Your task to perform on an android device: uninstall "TextNow: Call + Text Unlimited" Image 0: 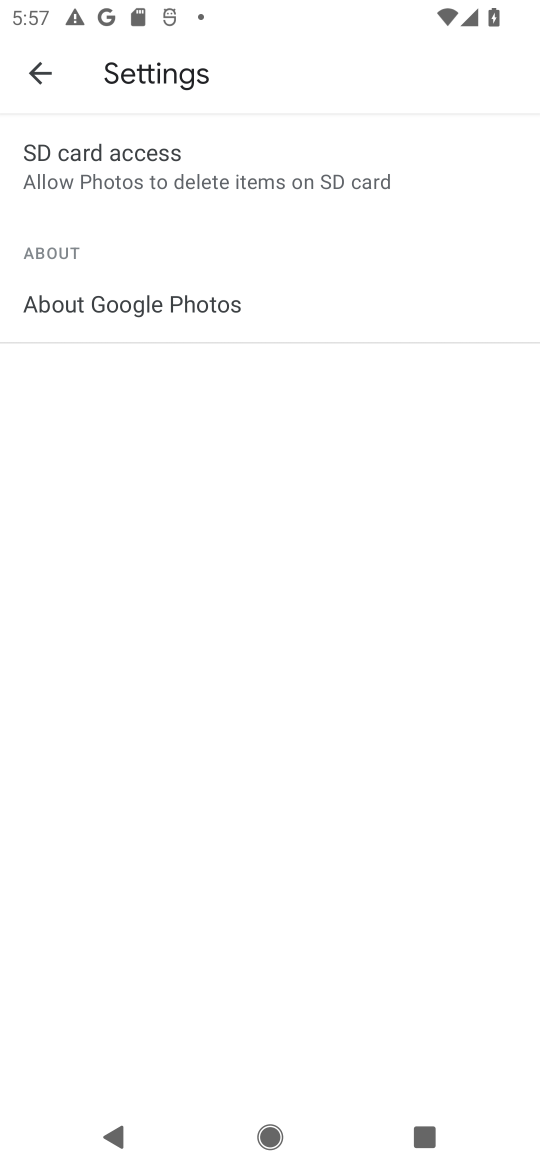
Step 0: click (29, 62)
Your task to perform on an android device: uninstall "TextNow: Call + Text Unlimited" Image 1: 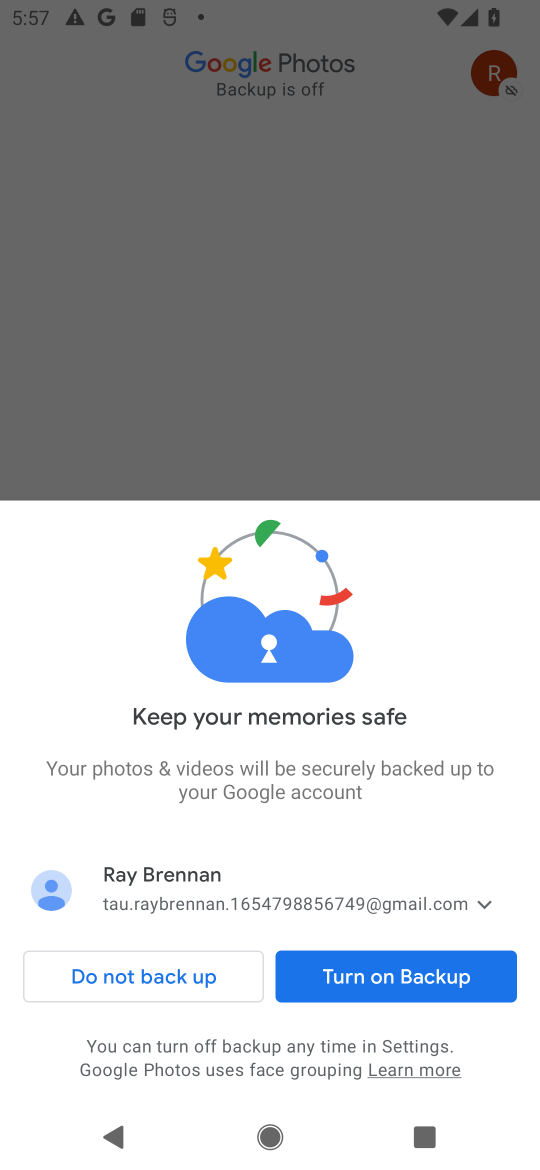
Step 1: press home button
Your task to perform on an android device: uninstall "TextNow: Call + Text Unlimited" Image 2: 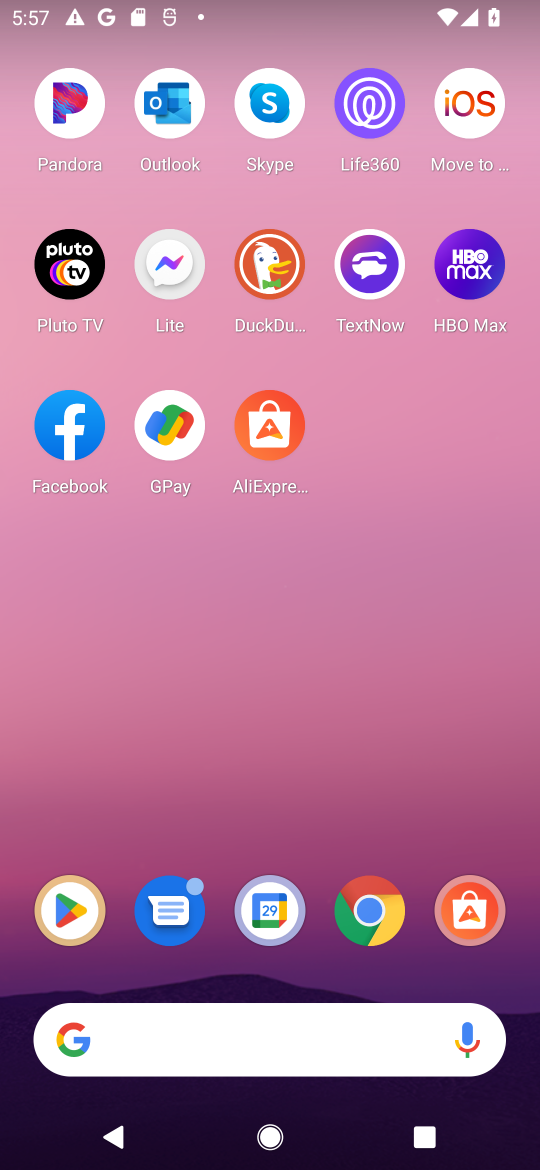
Step 2: drag from (238, 864) to (250, 353)
Your task to perform on an android device: uninstall "TextNow: Call + Text Unlimited" Image 3: 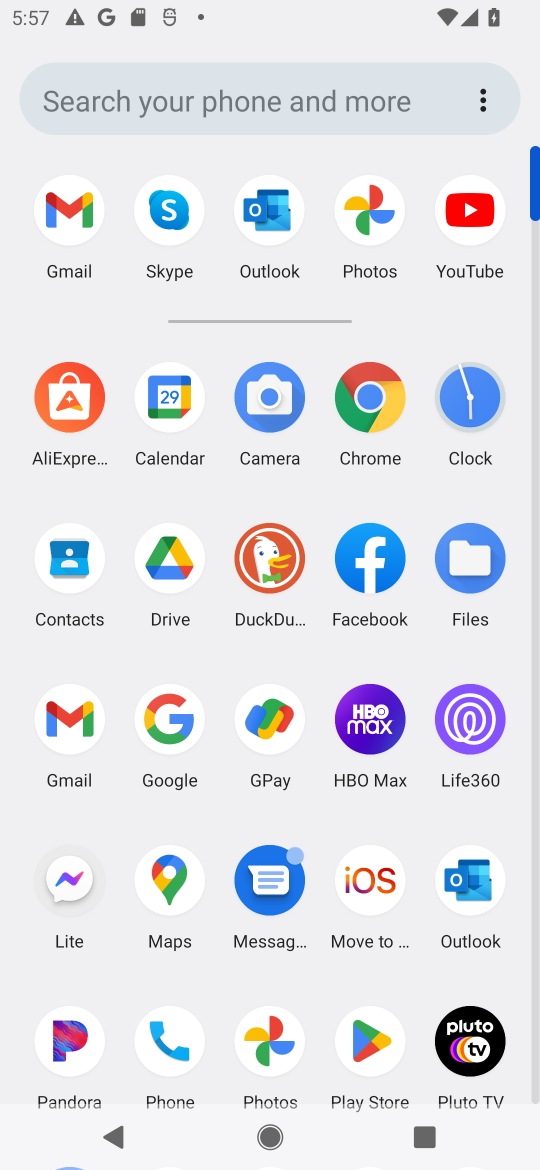
Step 3: click (369, 1037)
Your task to perform on an android device: uninstall "TextNow: Call + Text Unlimited" Image 4: 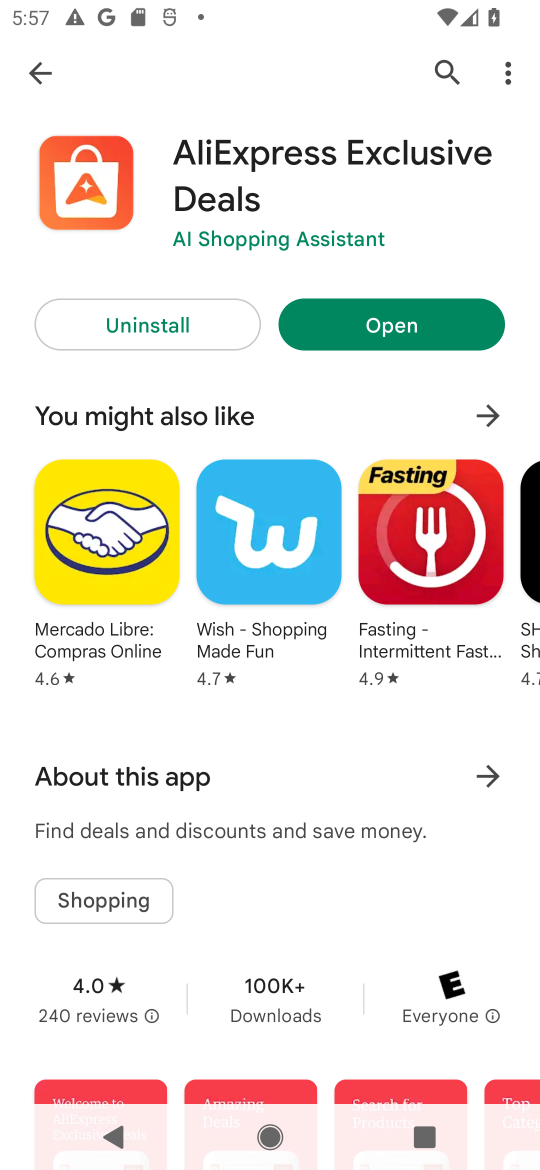
Step 4: click (33, 71)
Your task to perform on an android device: uninstall "TextNow: Call + Text Unlimited" Image 5: 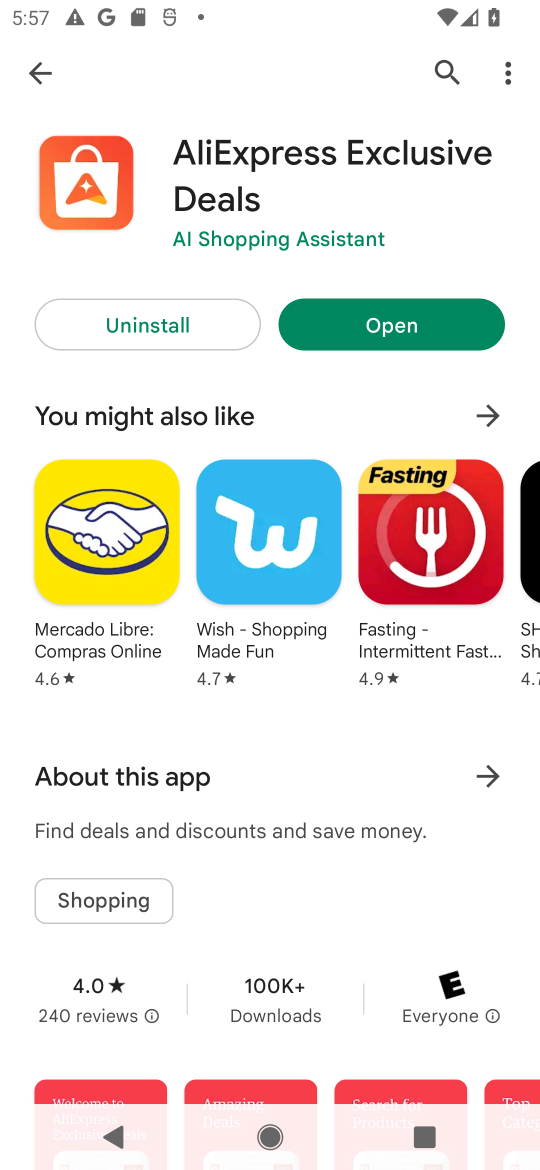
Step 5: click (34, 66)
Your task to perform on an android device: uninstall "TextNow: Call + Text Unlimited" Image 6: 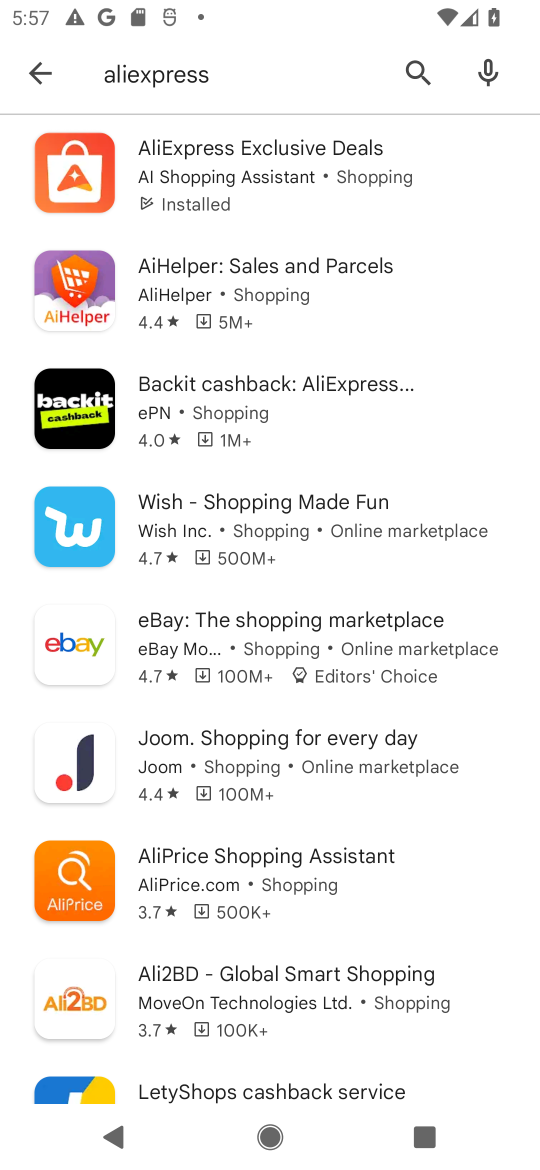
Step 6: click (418, 72)
Your task to perform on an android device: uninstall "TextNow: Call + Text Unlimited" Image 7: 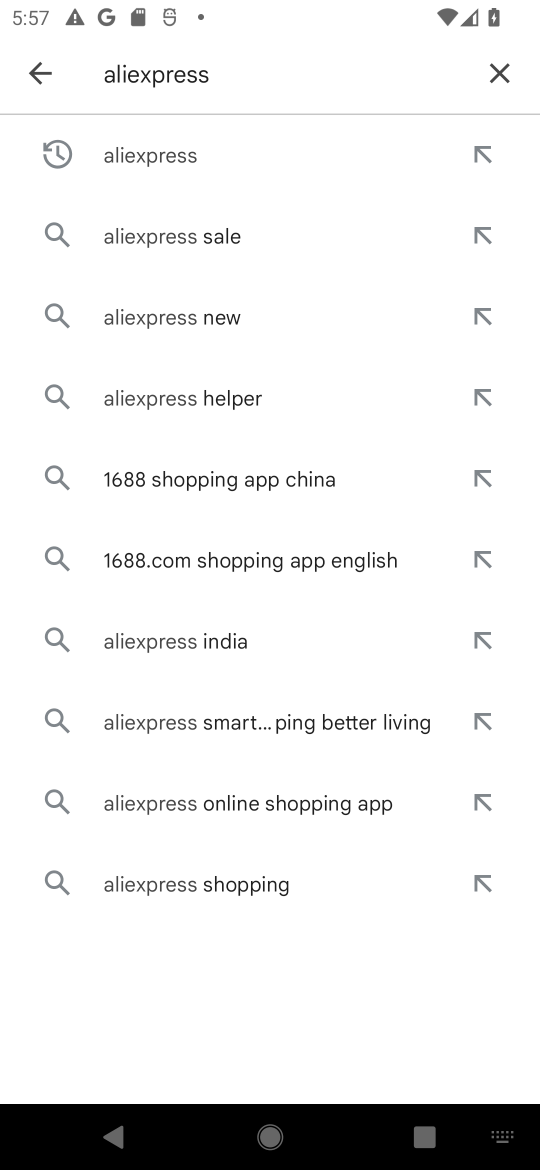
Step 7: click (498, 62)
Your task to perform on an android device: uninstall "TextNow: Call + Text Unlimited" Image 8: 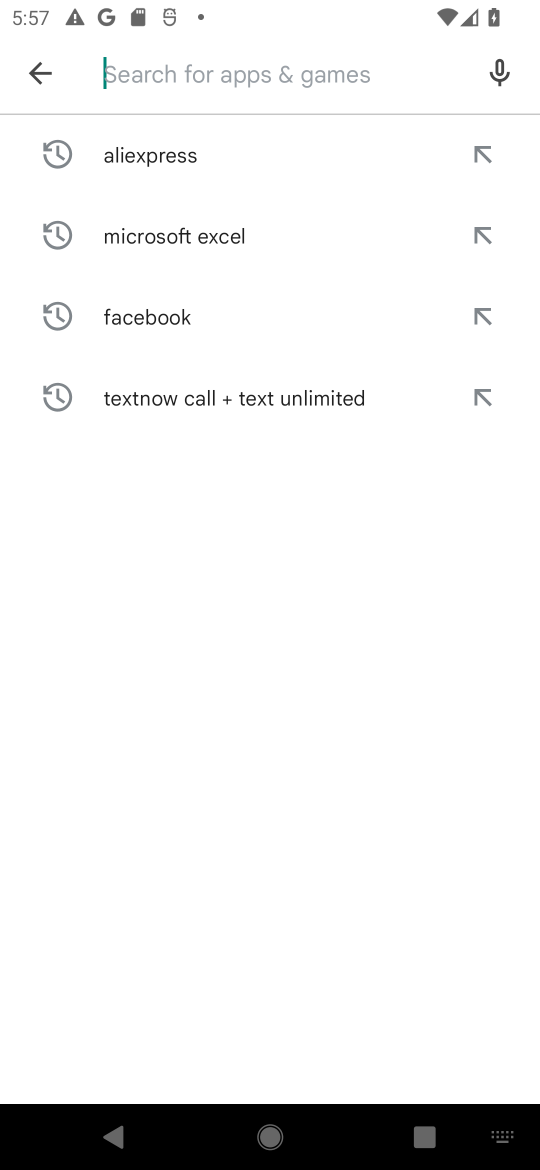
Step 8: click (201, 71)
Your task to perform on an android device: uninstall "TextNow: Call + Text Unlimited" Image 9: 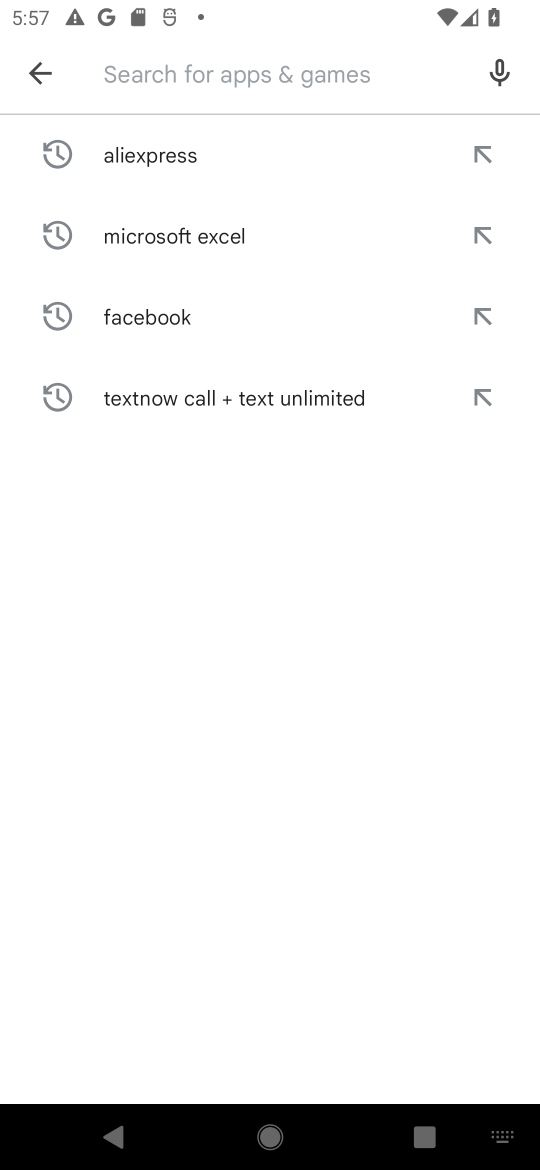
Step 9: type "TextNow: Call + Text Unlimited"
Your task to perform on an android device: uninstall "TextNow: Call + Text Unlimited" Image 10: 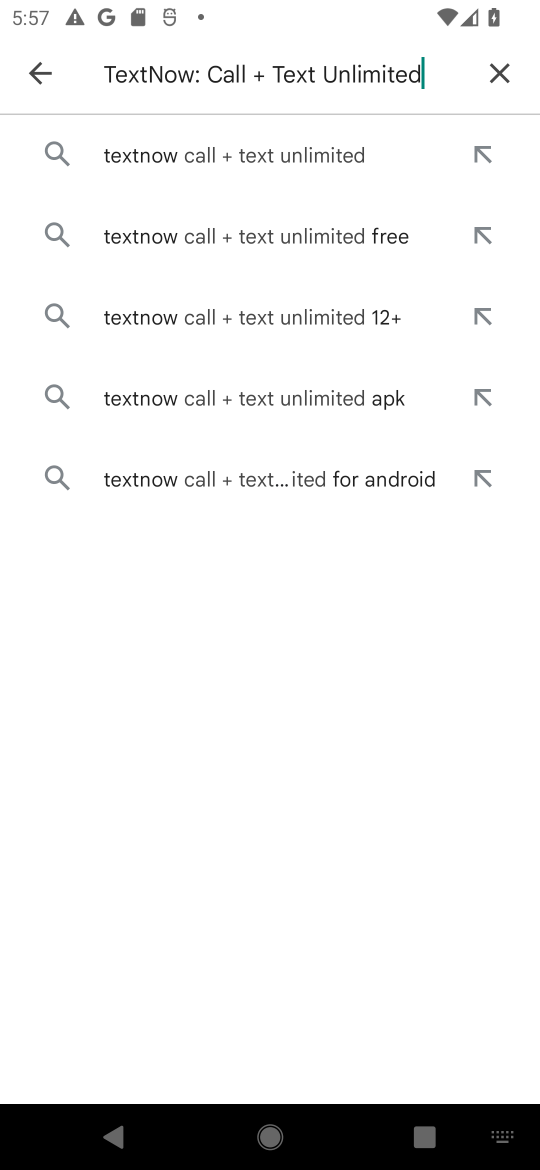
Step 10: click (223, 159)
Your task to perform on an android device: uninstall "TextNow: Call + Text Unlimited" Image 11: 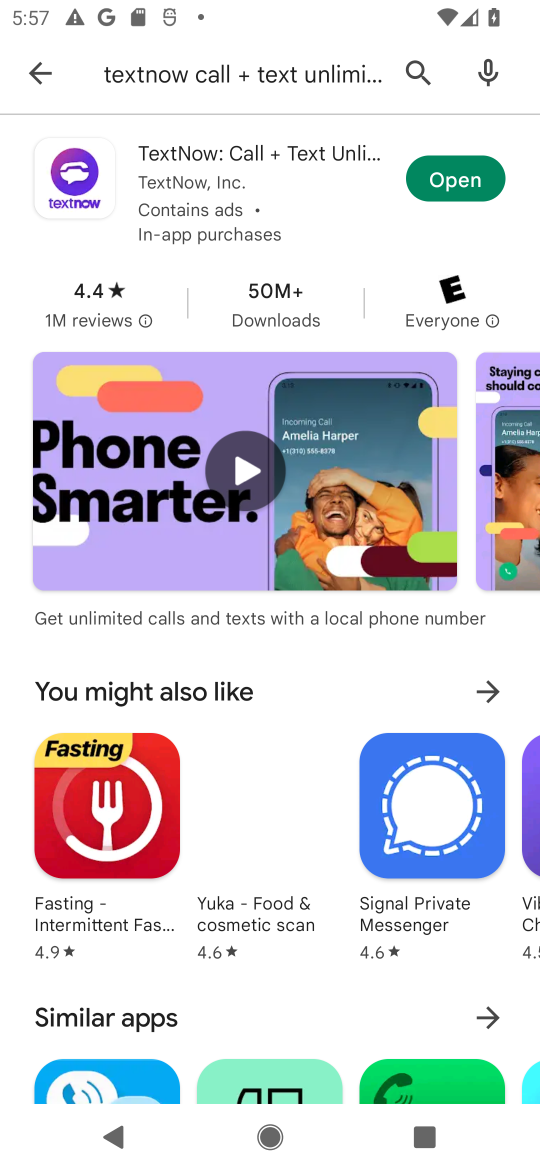
Step 11: task complete